Your task to perform on an android device: Open Google Chrome and open the bookmarks view Image 0: 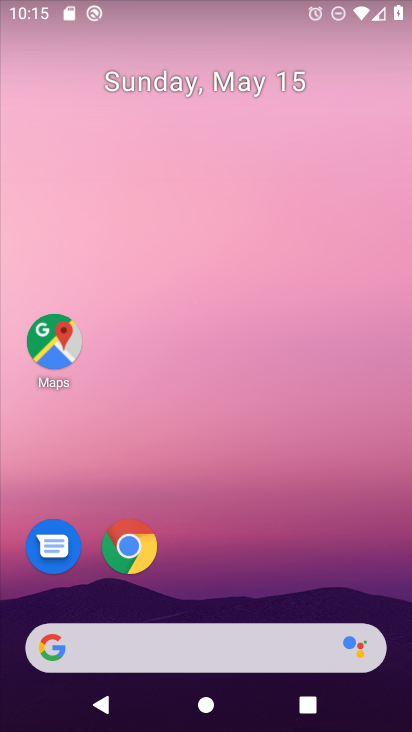
Step 0: click (126, 538)
Your task to perform on an android device: Open Google Chrome and open the bookmarks view Image 1: 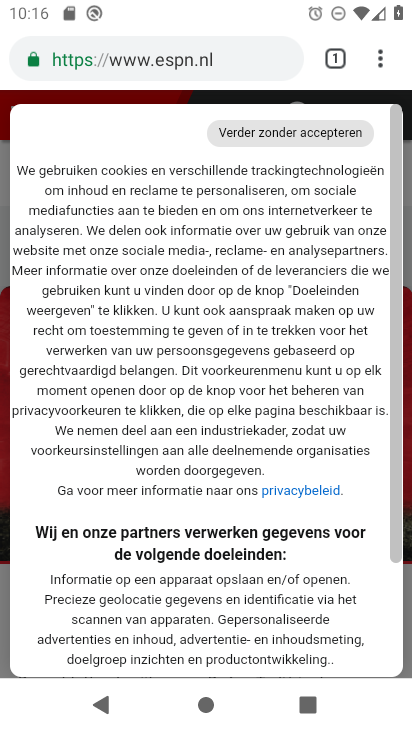
Step 1: task complete